Your task to perform on an android device: Open network settings Image 0: 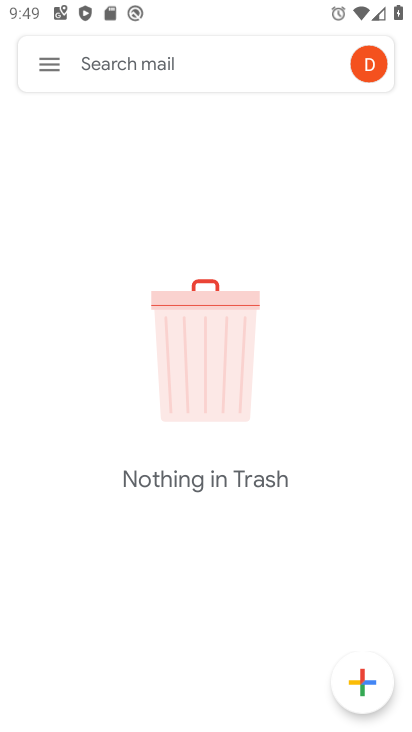
Step 0: drag from (157, 550) to (183, 461)
Your task to perform on an android device: Open network settings Image 1: 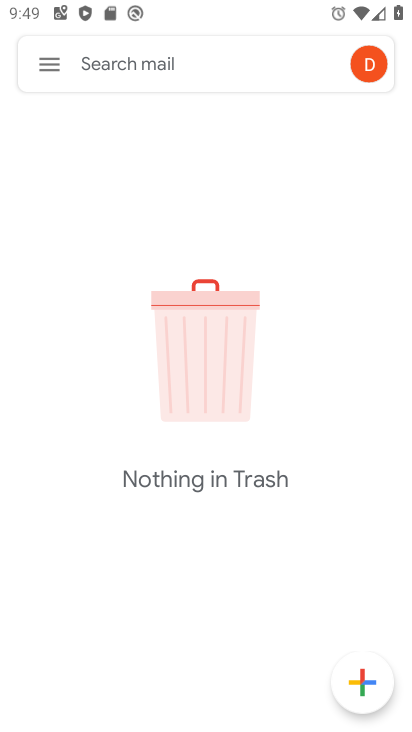
Step 1: press home button
Your task to perform on an android device: Open network settings Image 2: 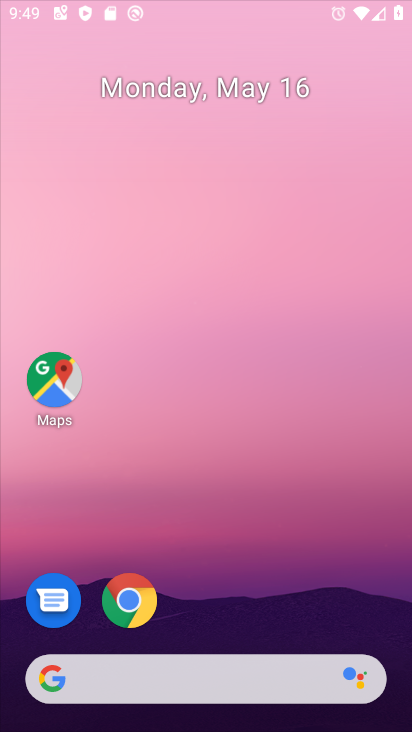
Step 2: drag from (188, 602) to (231, 167)
Your task to perform on an android device: Open network settings Image 3: 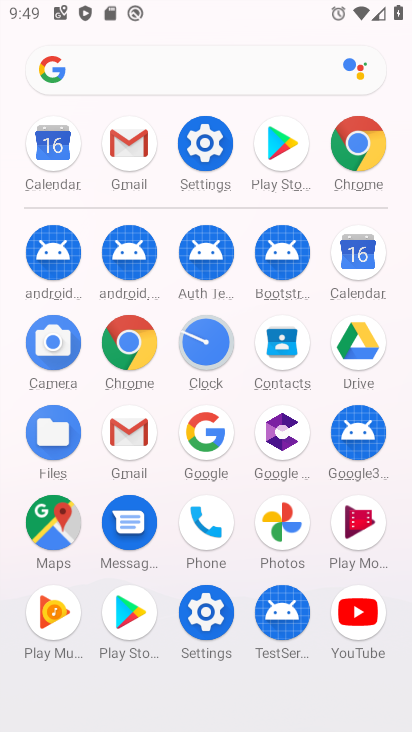
Step 3: click (205, 133)
Your task to perform on an android device: Open network settings Image 4: 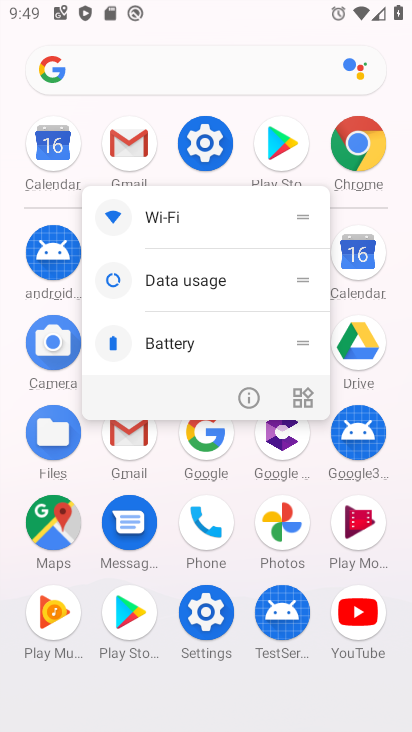
Step 4: click (245, 406)
Your task to perform on an android device: Open network settings Image 5: 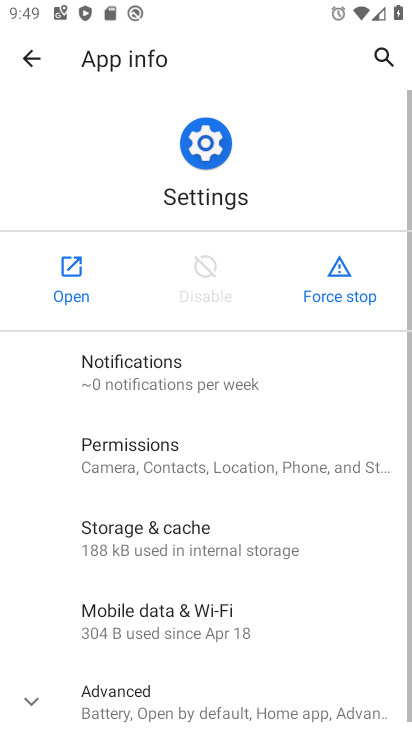
Step 5: click (184, 351)
Your task to perform on an android device: Open network settings Image 6: 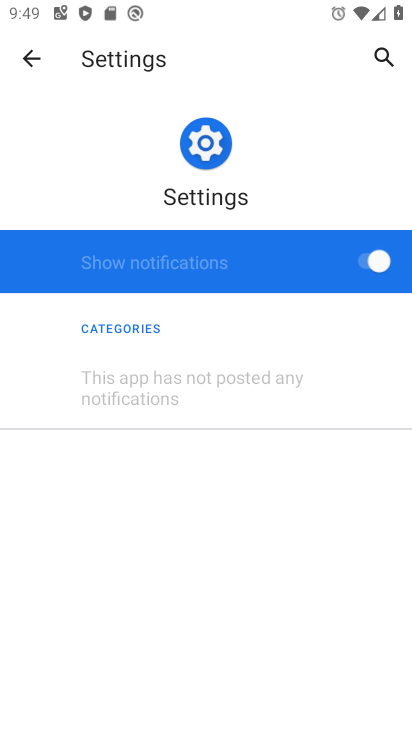
Step 6: click (8, 71)
Your task to perform on an android device: Open network settings Image 7: 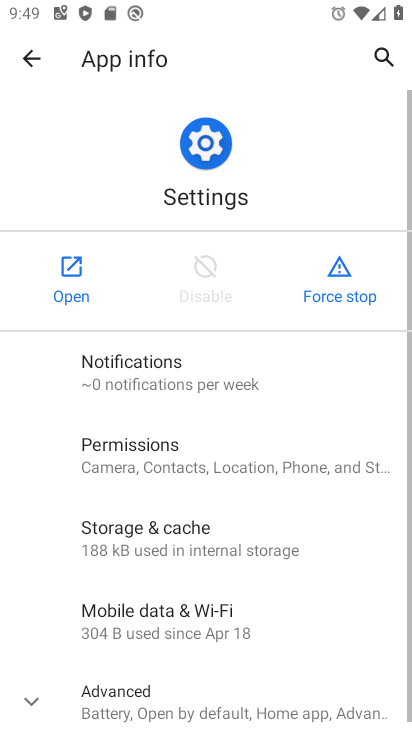
Step 7: click (81, 273)
Your task to perform on an android device: Open network settings Image 8: 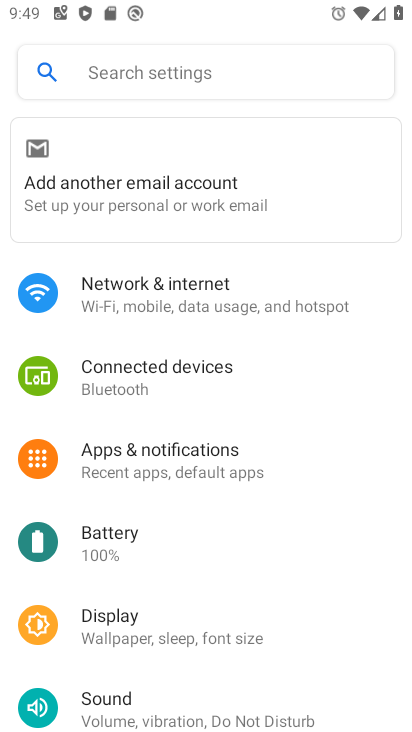
Step 8: click (67, 316)
Your task to perform on an android device: Open network settings Image 9: 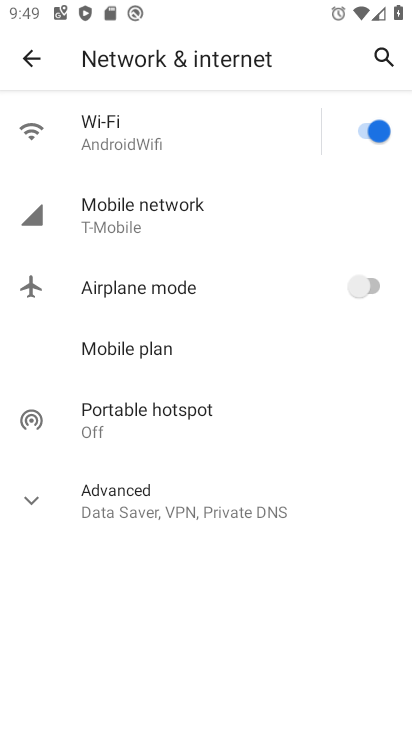
Step 9: task complete